Your task to perform on an android device: change text size in settings app Image 0: 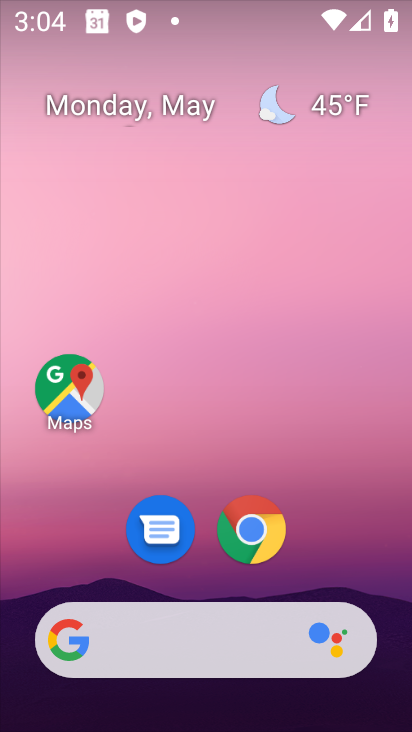
Step 0: drag from (394, 499) to (217, 18)
Your task to perform on an android device: change text size in settings app Image 1: 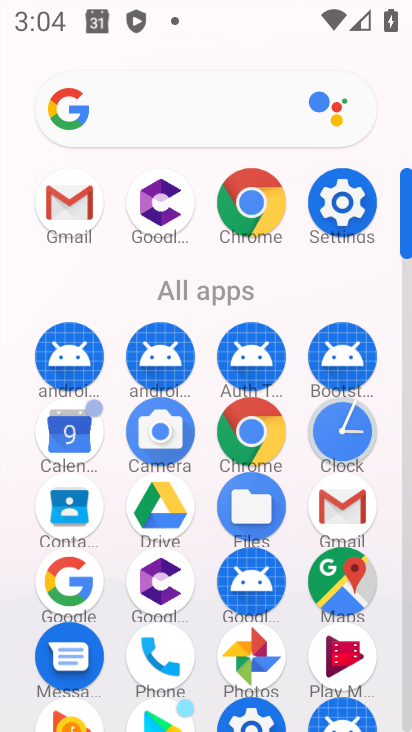
Step 1: click (346, 202)
Your task to perform on an android device: change text size in settings app Image 2: 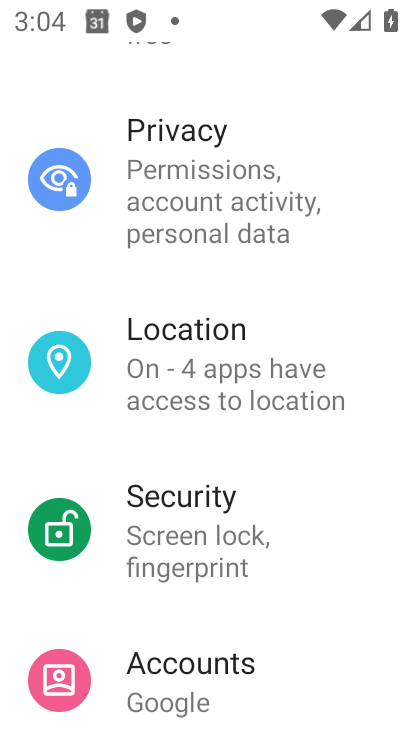
Step 2: drag from (244, 128) to (293, 481)
Your task to perform on an android device: change text size in settings app Image 3: 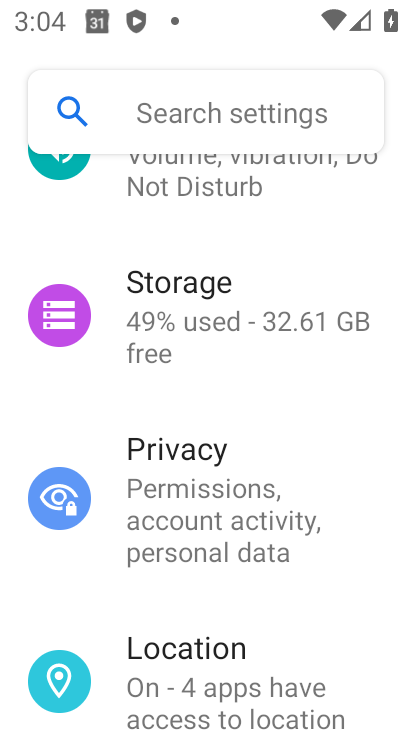
Step 3: drag from (251, 238) to (270, 521)
Your task to perform on an android device: change text size in settings app Image 4: 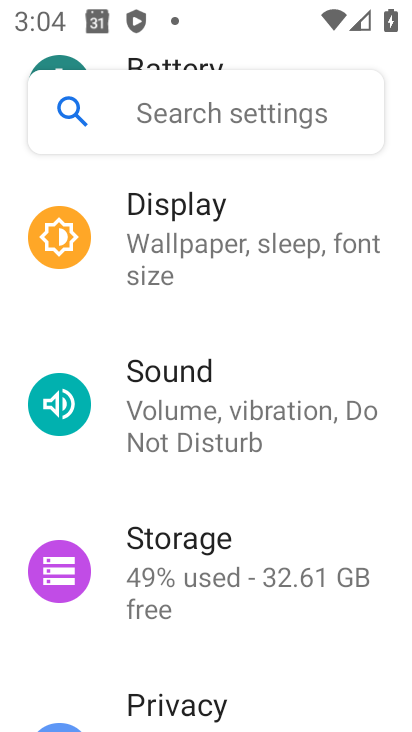
Step 4: click (259, 227)
Your task to perform on an android device: change text size in settings app Image 5: 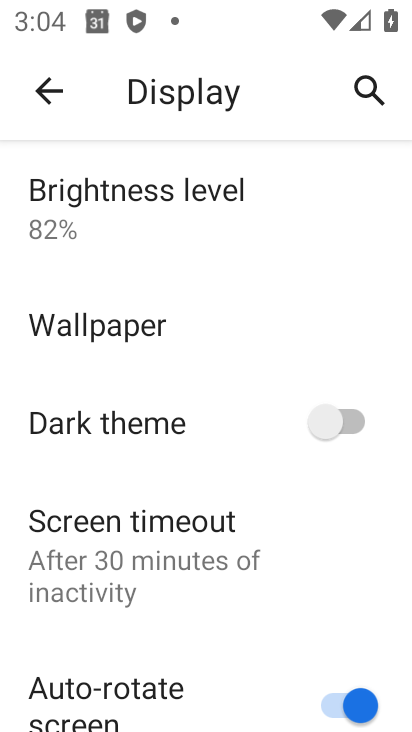
Step 5: drag from (282, 662) to (230, 262)
Your task to perform on an android device: change text size in settings app Image 6: 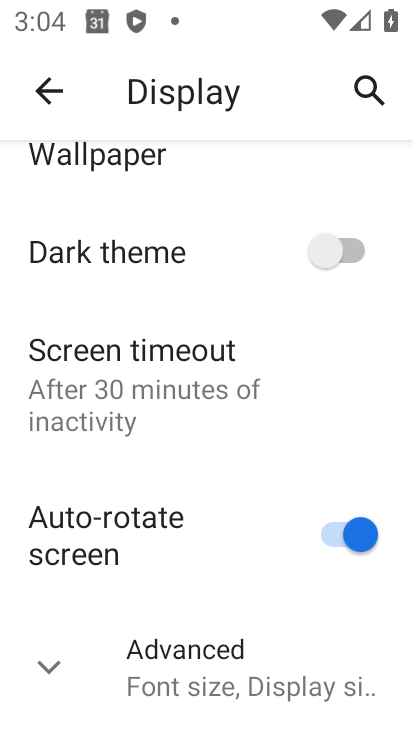
Step 6: click (261, 634)
Your task to perform on an android device: change text size in settings app Image 7: 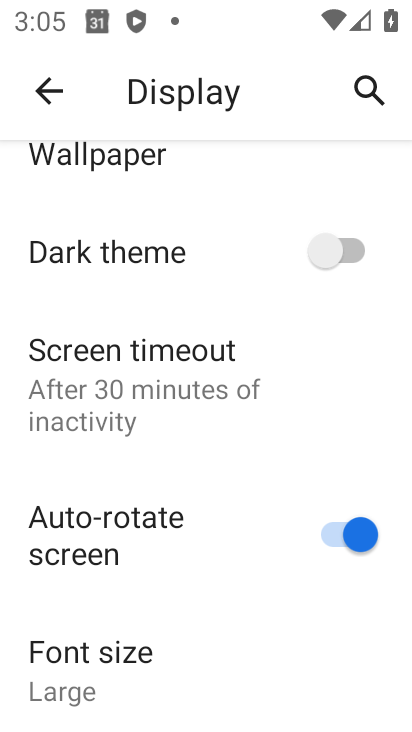
Step 7: click (251, 696)
Your task to perform on an android device: change text size in settings app Image 8: 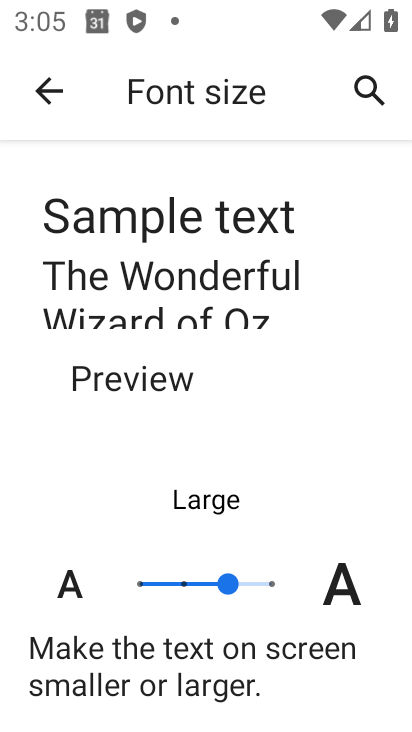
Step 8: drag from (257, 666) to (158, 209)
Your task to perform on an android device: change text size in settings app Image 9: 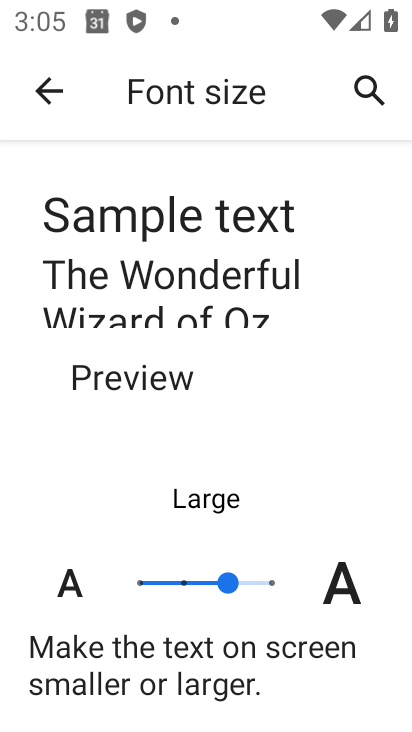
Step 9: click (168, 581)
Your task to perform on an android device: change text size in settings app Image 10: 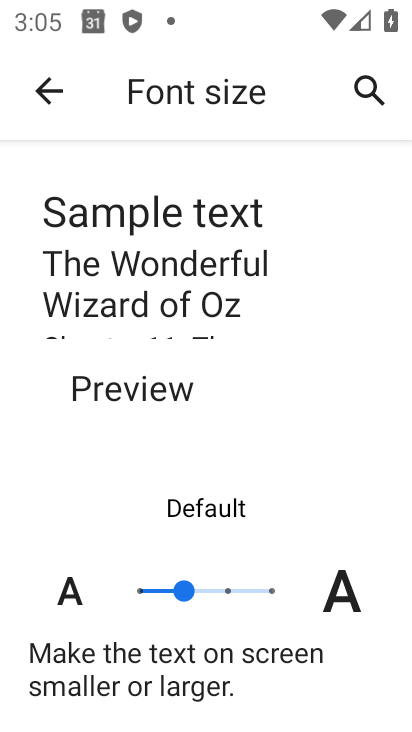
Step 10: task complete